Your task to perform on an android device: Open internet settings Image 0: 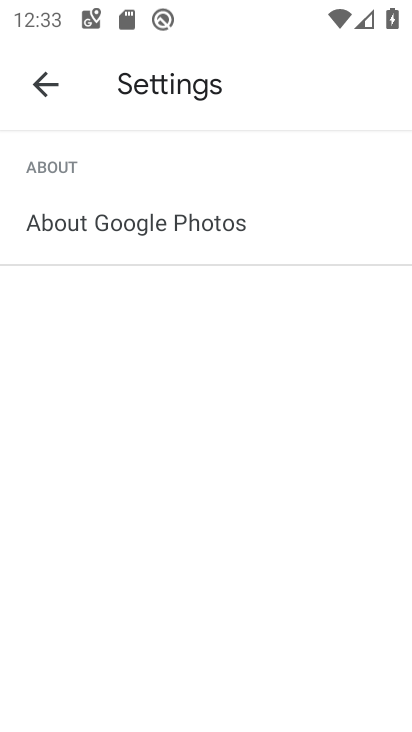
Step 0: press home button
Your task to perform on an android device: Open internet settings Image 1: 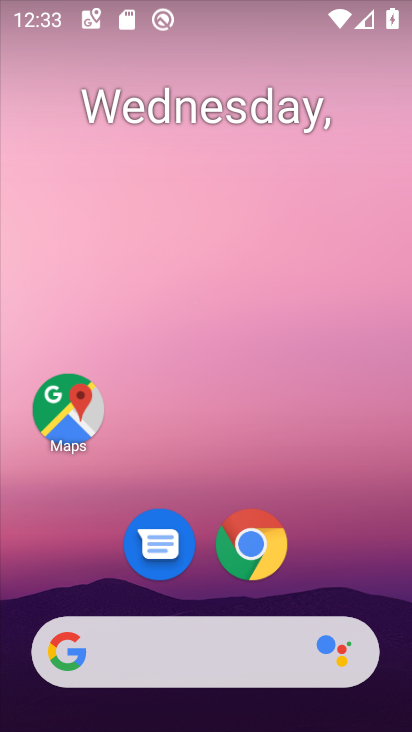
Step 1: drag from (198, 485) to (185, 73)
Your task to perform on an android device: Open internet settings Image 2: 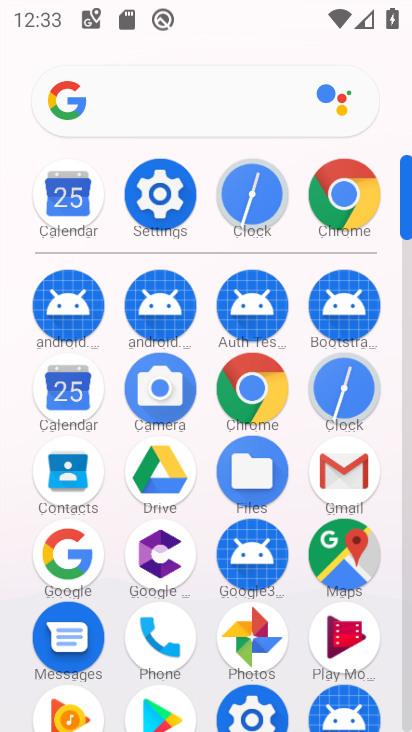
Step 2: click (163, 205)
Your task to perform on an android device: Open internet settings Image 3: 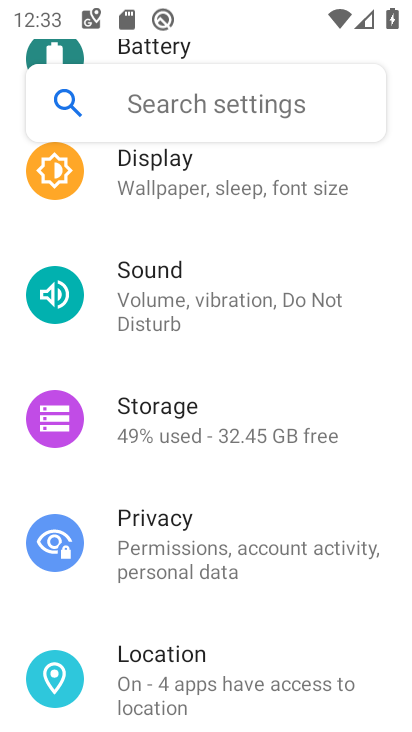
Step 3: drag from (125, 198) to (206, 641)
Your task to perform on an android device: Open internet settings Image 4: 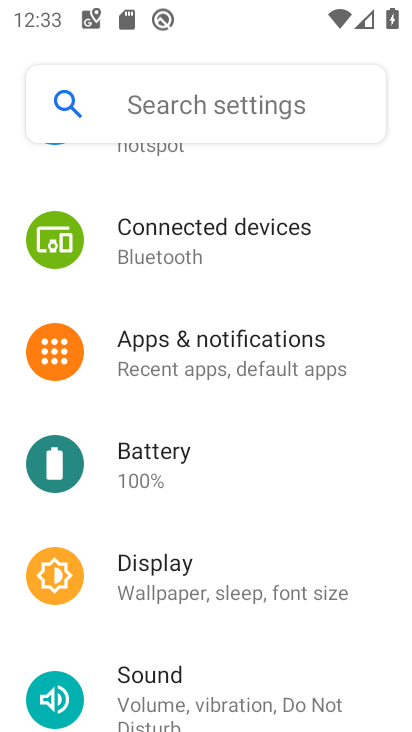
Step 4: drag from (223, 244) to (185, 602)
Your task to perform on an android device: Open internet settings Image 5: 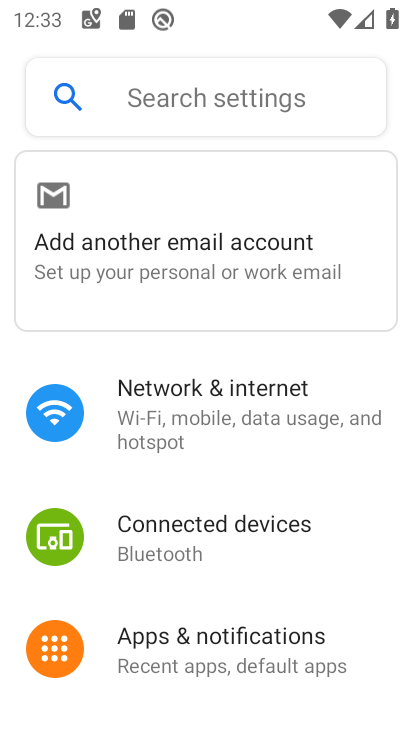
Step 5: click (211, 429)
Your task to perform on an android device: Open internet settings Image 6: 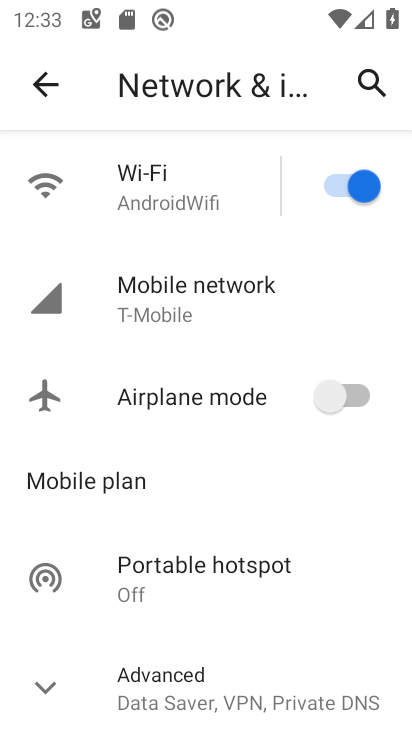
Step 6: click (180, 304)
Your task to perform on an android device: Open internet settings Image 7: 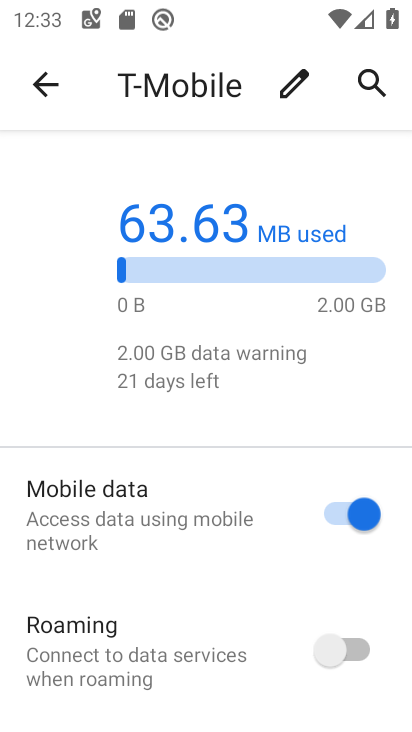
Step 7: task complete